Your task to perform on an android device: turn on priority inbox in the gmail app Image 0: 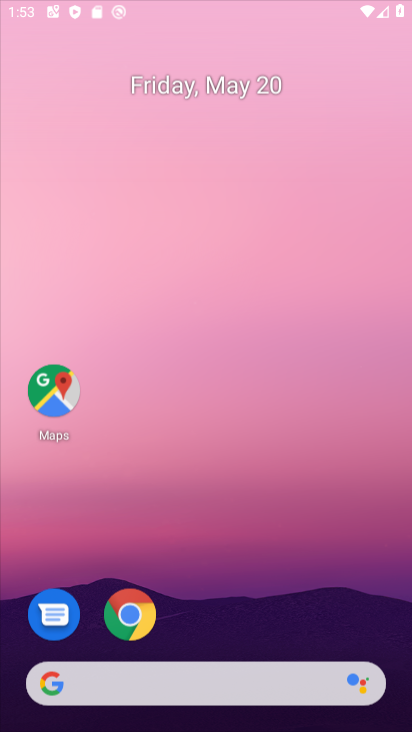
Step 0: click (138, 604)
Your task to perform on an android device: turn on priority inbox in the gmail app Image 1: 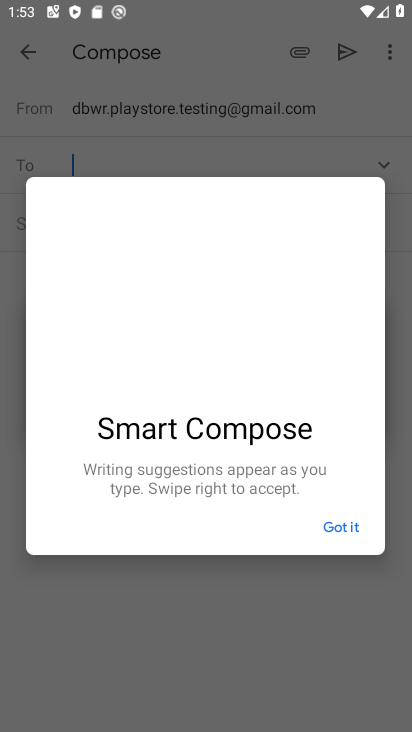
Step 1: press home button
Your task to perform on an android device: turn on priority inbox in the gmail app Image 2: 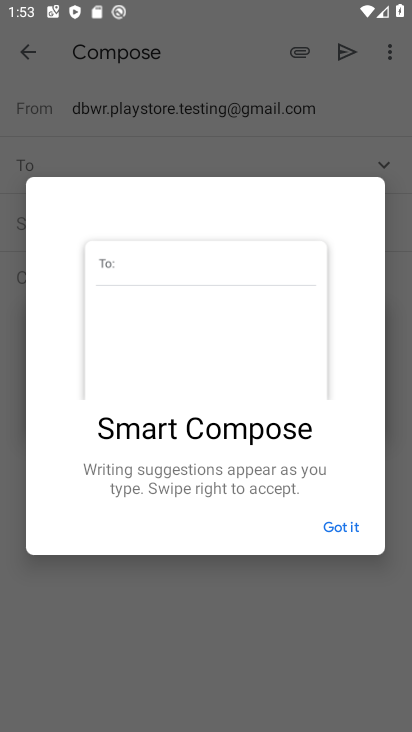
Step 2: click (326, 529)
Your task to perform on an android device: turn on priority inbox in the gmail app Image 3: 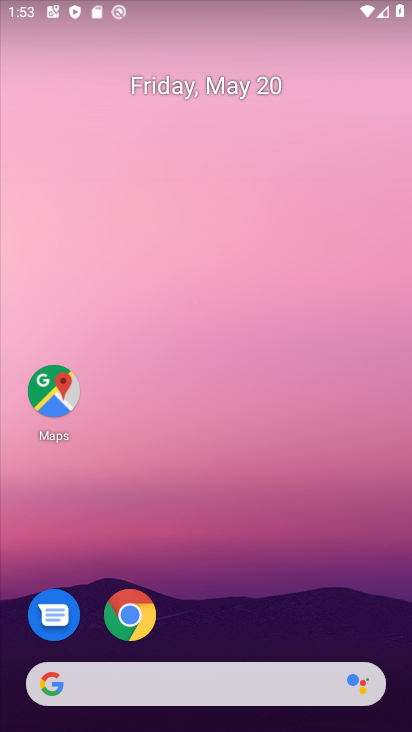
Step 3: drag from (225, 568) to (271, 259)
Your task to perform on an android device: turn on priority inbox in the gmail app Image 4: 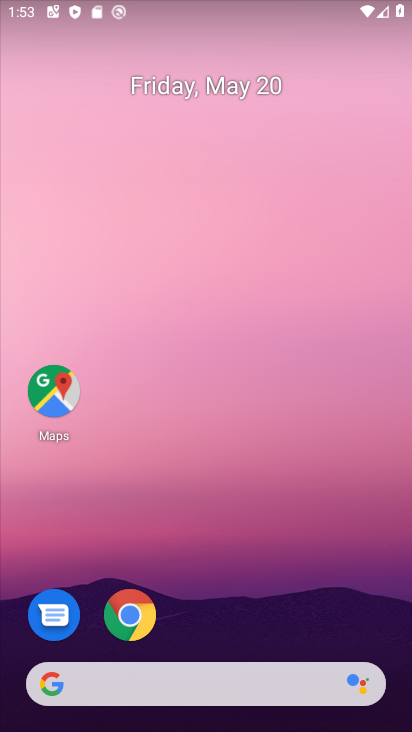
Step 4: drag from (281, 531) to (292, 218)
Your task to perform on an android device: turn on priority inbox in the gmail app Image 5: 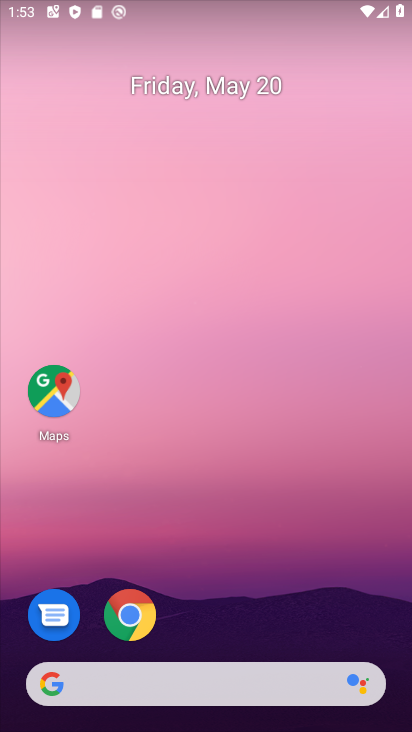
Step 5: drag from (286, 550) to (302, 250)
Your task to perform on an android device: turn on priority inbox in the gmail app Image 6: 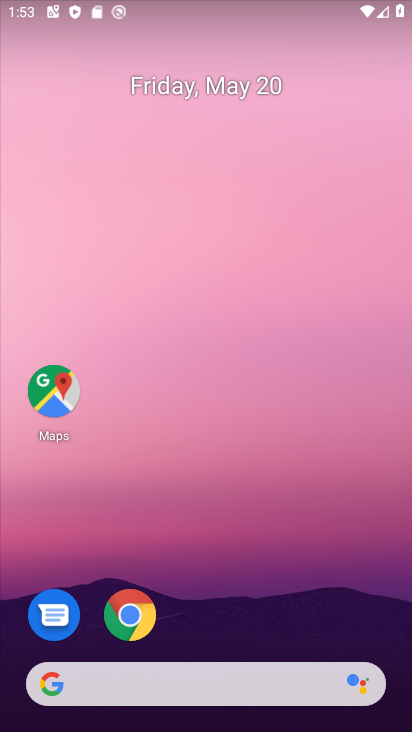
Step 6: drag from (270, 602) to (242, 190)
Your task to perform on an android device: turn on priority inbox in the gmail app Image 7: 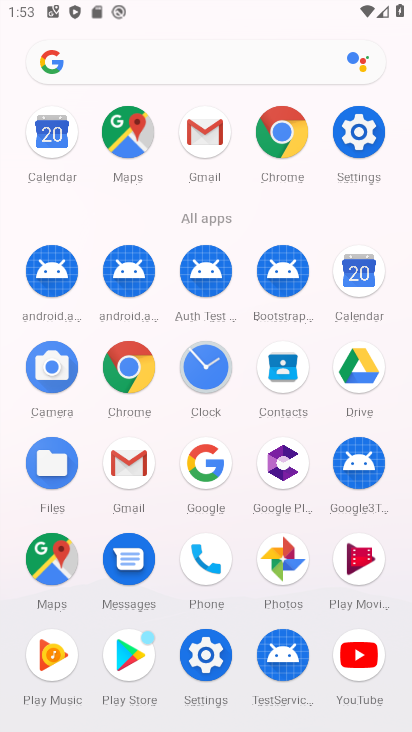
Step 7: click (135, 460)
Your task to perform on an android device: turn on priority inbox in the gmail app Image 8: 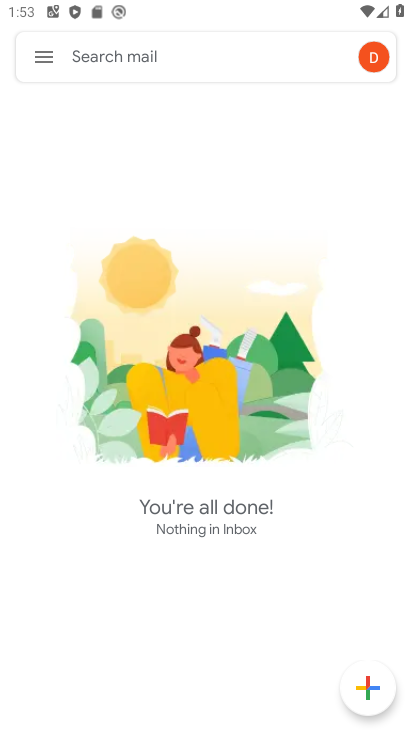
Step 8: click (40, 54)
Your task to perform on an android device: turn on priority inbox in the gmail app Image 9: 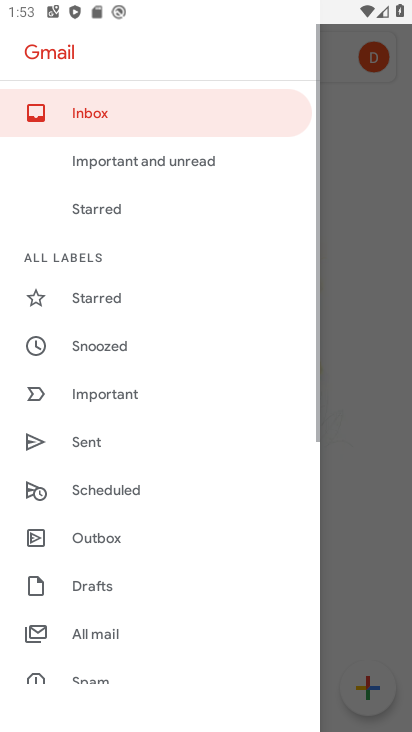
Step 9: drag from (135, 593) to (145, 299)
Your task to perform on an android device: turn on priority inbox in the gmail app Image 10: 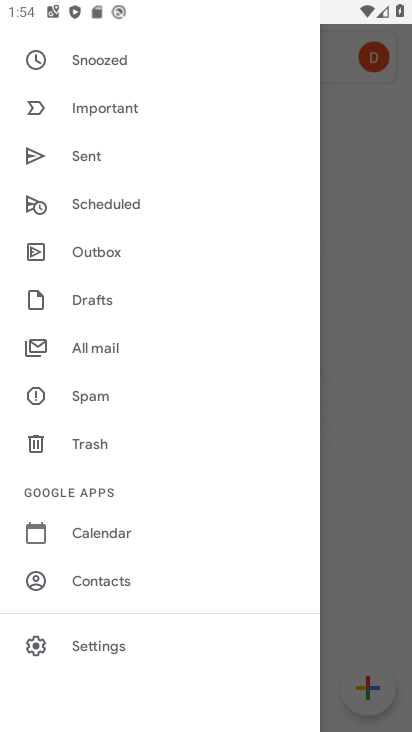
Step 10: click (98, 643)
Your task to perform on an android device: turn on priority inbox in the gmail app Image 11: 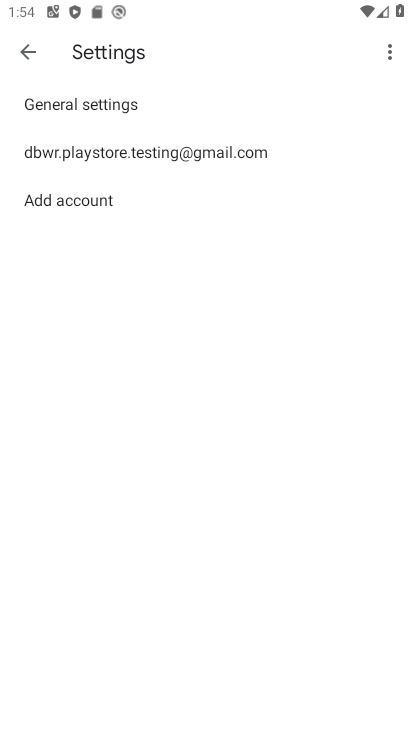
Step 11: drag from (107, 613) to (119, 360)
Your task to perform on an android device: turn on priority inbox in the gmail app Image 12: 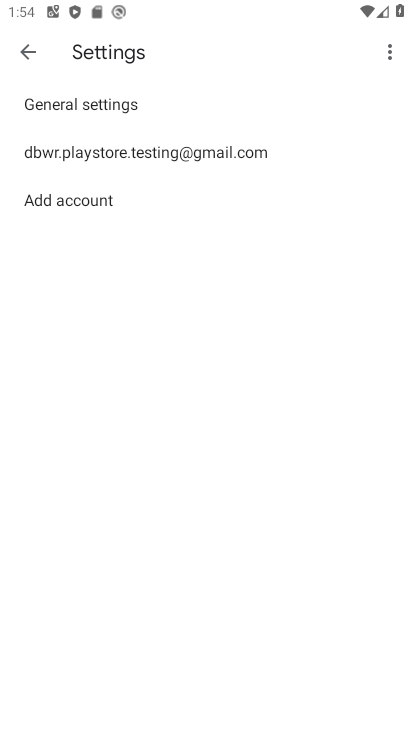
Step 12: click (139, 146)
Your task to perform on an android device: turn on priority inbox in the gmail app Image 13: 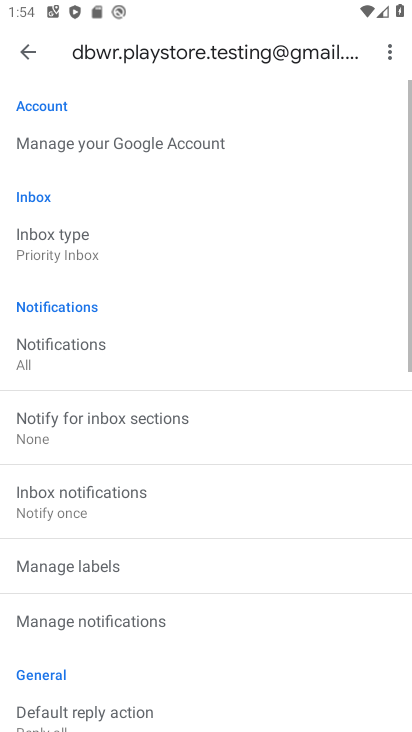
Step 13: click (55, 237)
Your task to perform on an android device: turn on priority inbox in the gmail app Image 14: 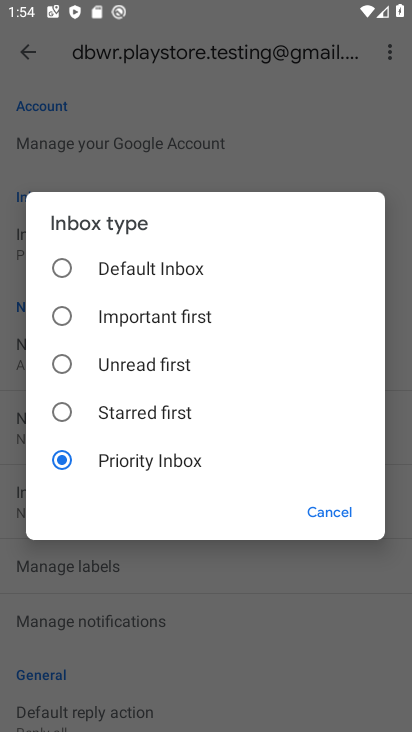
Step 14: task complete